Your task to perform on an android device: Open notification settings Image 0: 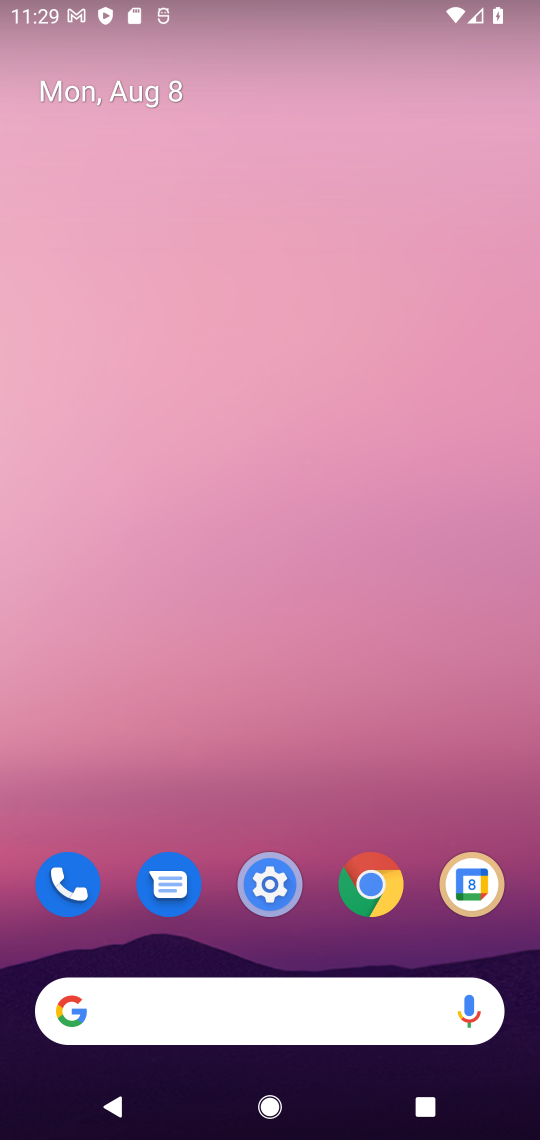
Step 0: click (262, 890)
Your task to perform on an android device: Open notification settings Image 1: 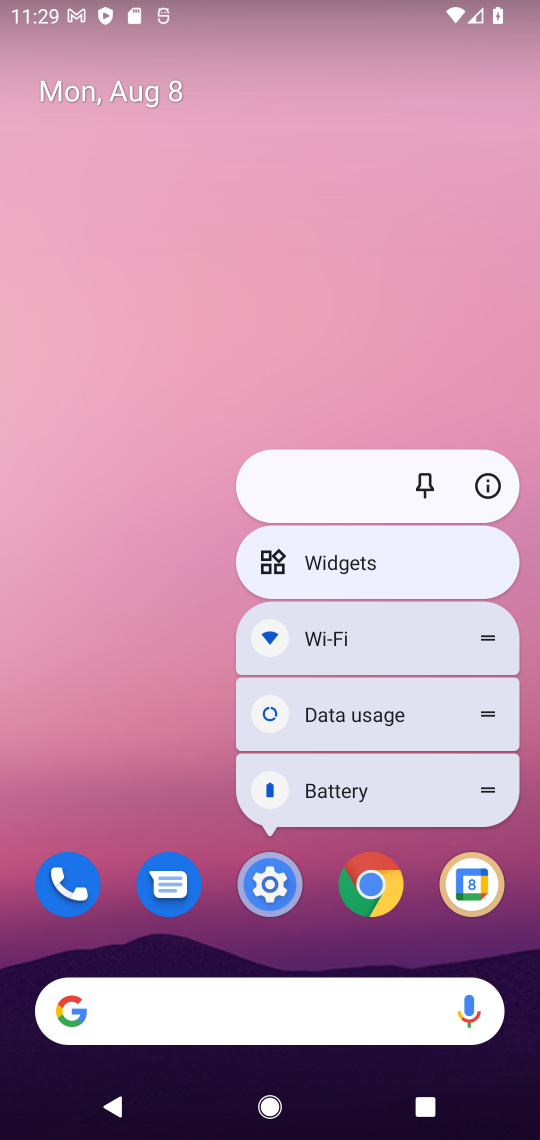
Step 1: click (267, 888)
Your task to perform on an android device: Open notification settings Image 2: 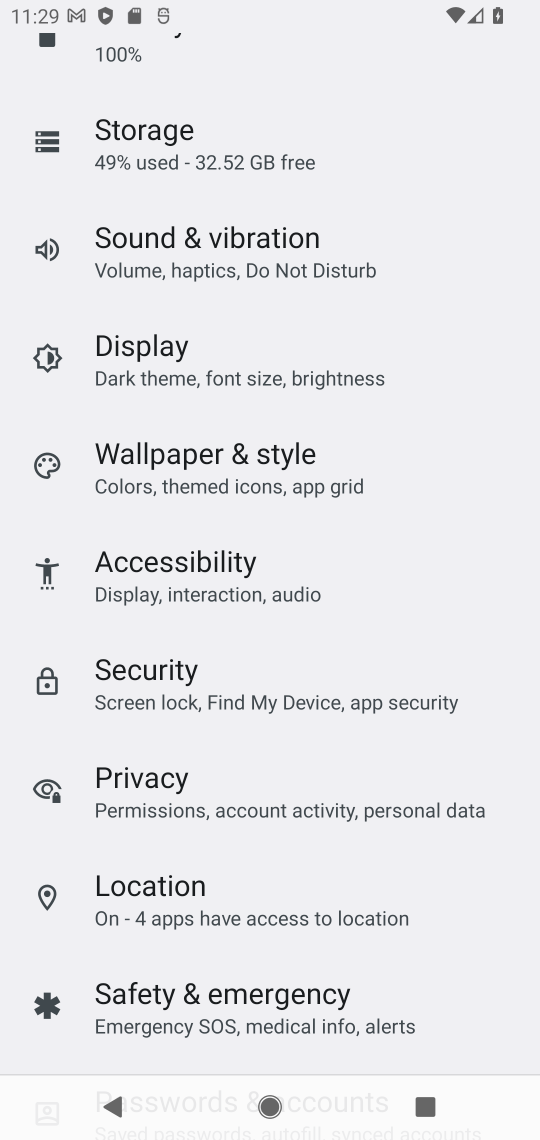
Step 2: drag from (290, 396) to (256, 812)
Your task to perform on an android device: Open notification settings Image 3: 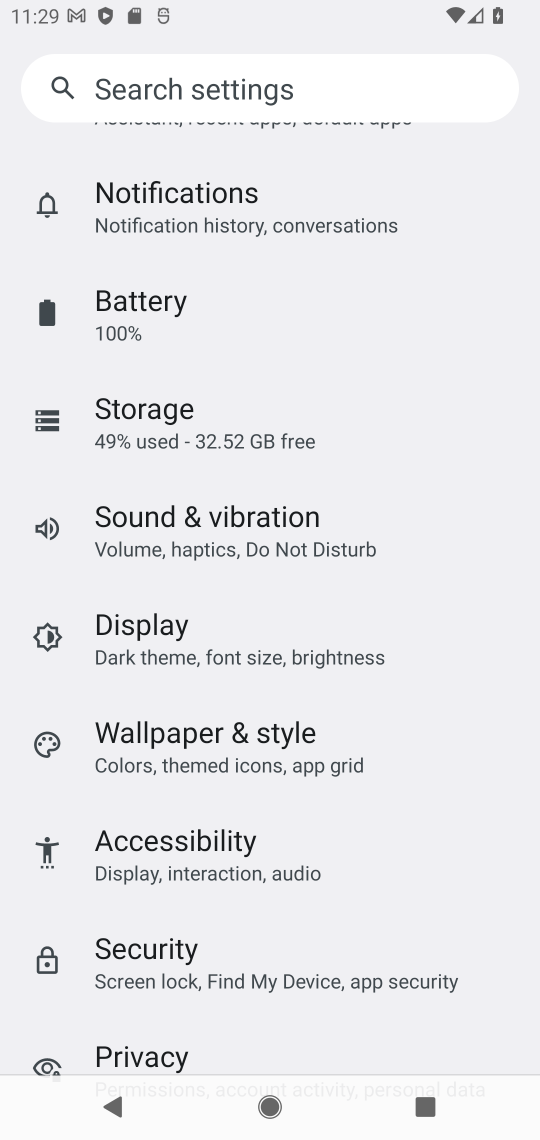
Step 3: click (235, 218)
Your task to perform on an android device: Open notification settings Image 4: 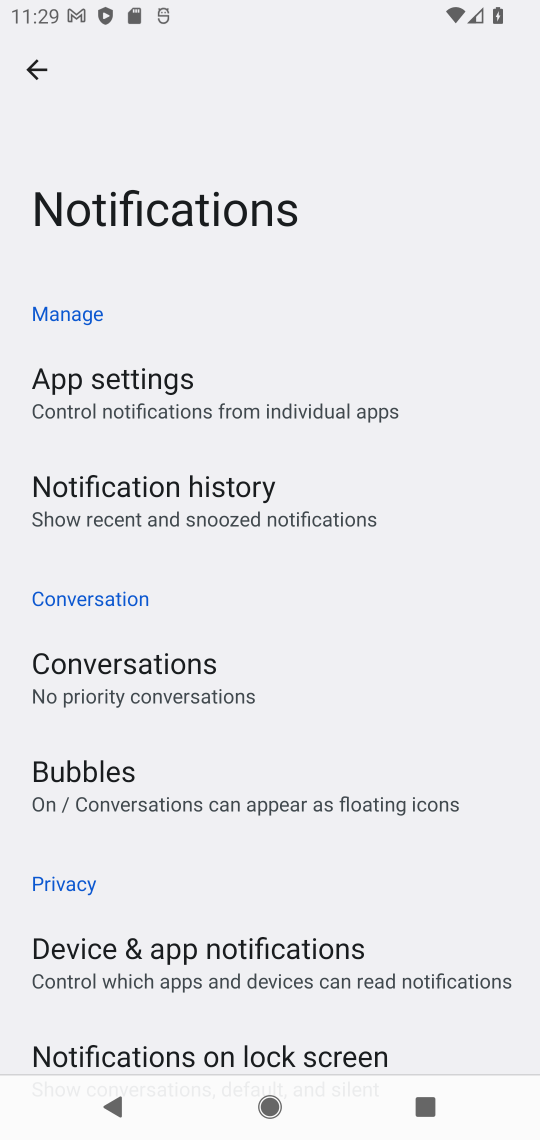
Step 4: task complete